Your task to perform on an android device: Go to eBay Image 0: 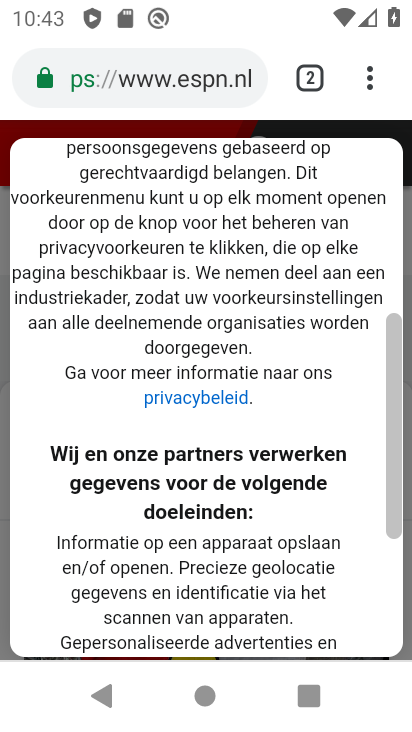
Step 0: click (216, 82)
Your task to perform on an android device: Go to eBay Image 1: 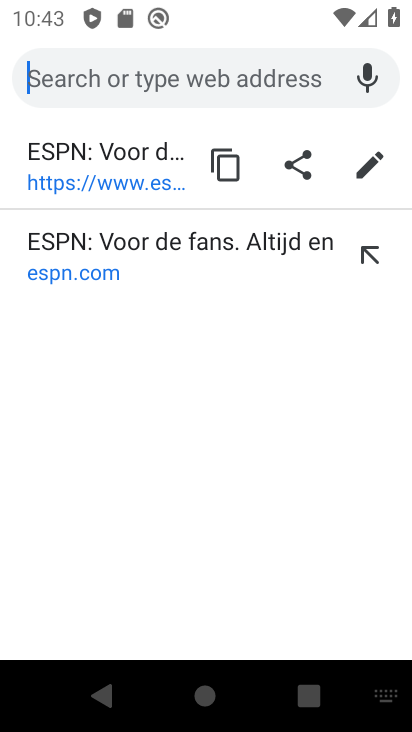
Step 1: type "bay"
Your task to perform on an android device: Go to eBay Image 2: 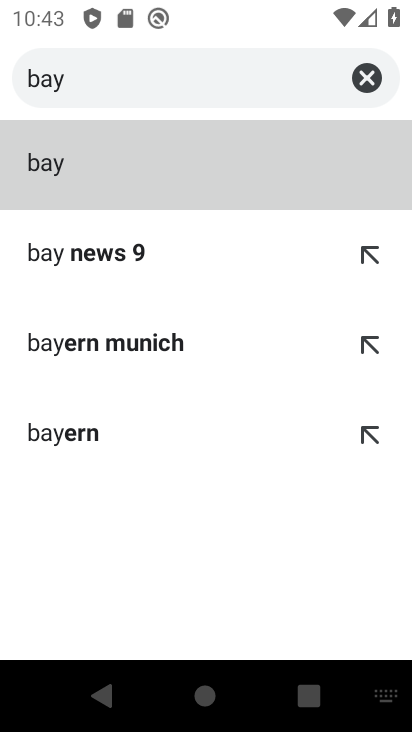
Step 2: click (183, 87)
Your task to perform on an android device: Go to eBay Image 3: 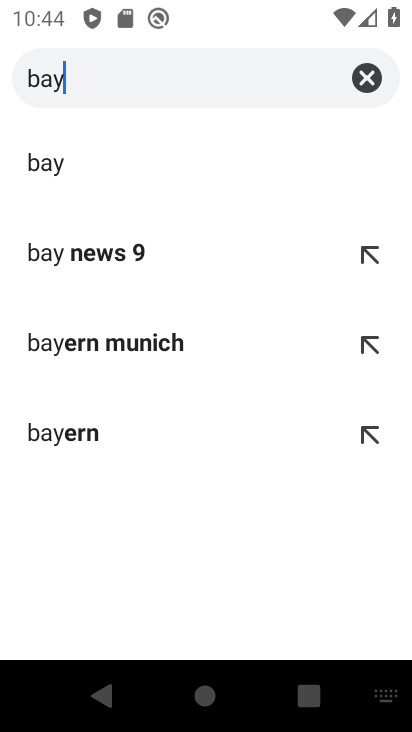
Step 3: click (374, 82)
Your task to perform on an android device: Go to eBay Image 4: 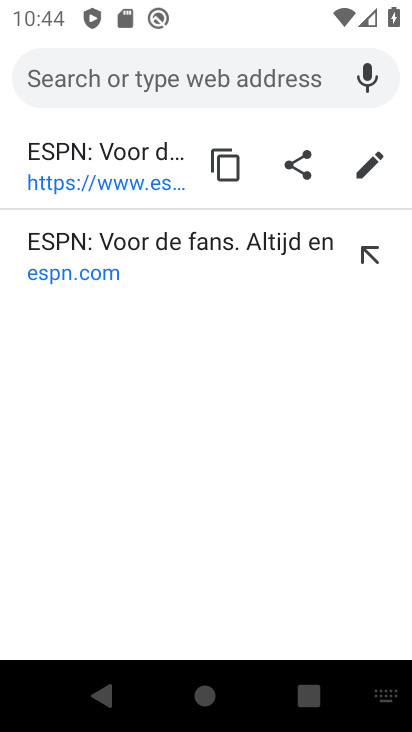
Step 4: click (153, 93)
Your task to perform on an android device: Go to eBay Image 5: 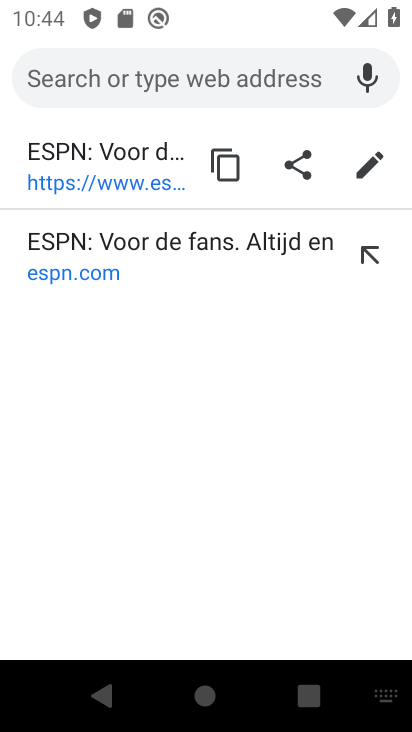
Step 5: type "ebay"
Your task to perform on an android device: Go to eBay Image 6: 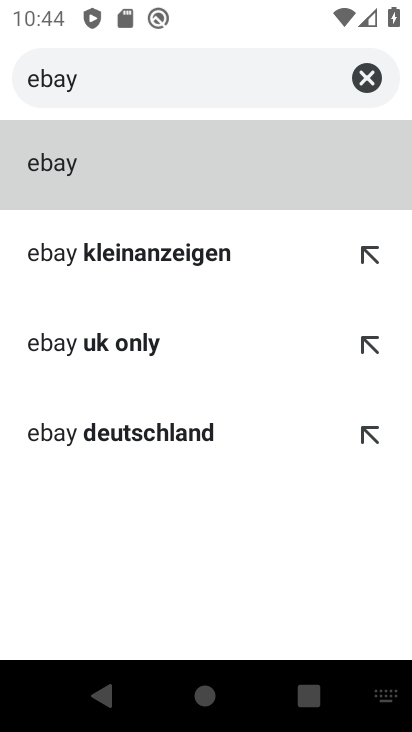
Step 6: click (128, 167)
Your task to perform on an android device: Go to eBay Image 7: 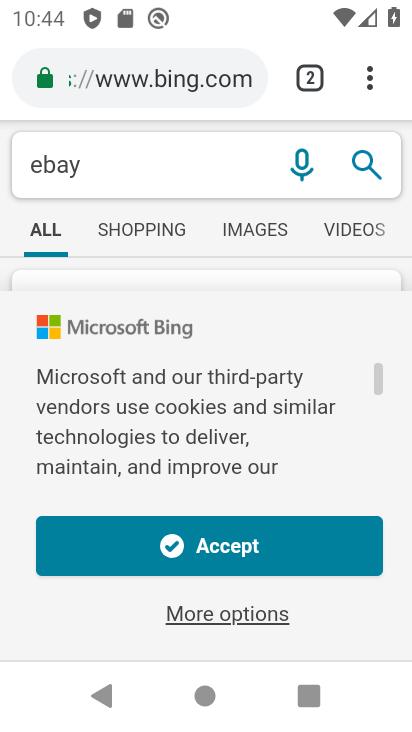
Step 7: click (174, 77)
Your task to perform on an android device: Go to eBay Image 8: 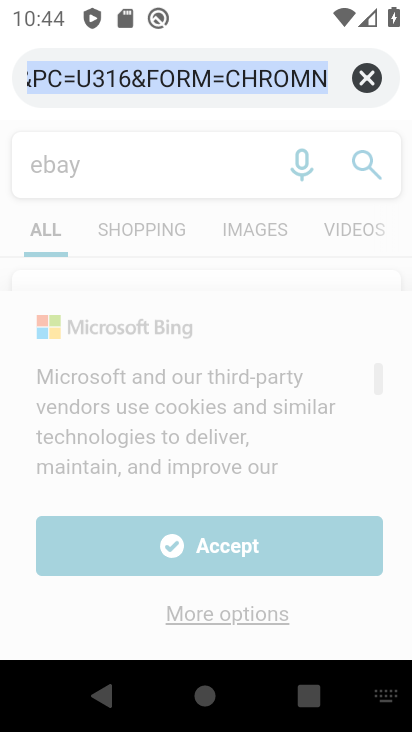
Step 8: click (362, 70)
Your task to perform on an android device: Go to eBay Image 9: 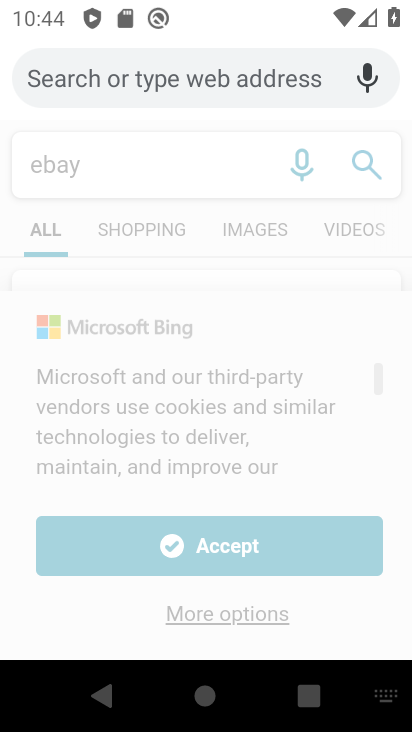
Step 9: task complete